Your task to perform on an android device: Go to ESPN.com Image 0: 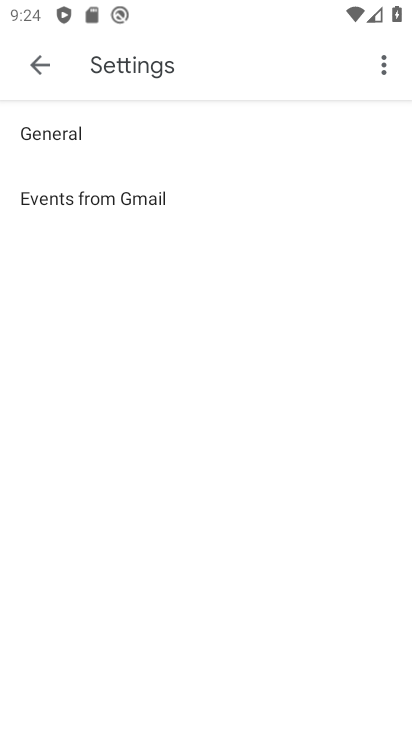
Step 0: press home button
Your task to perform on an android device: Go to ESPN.com Image 1: 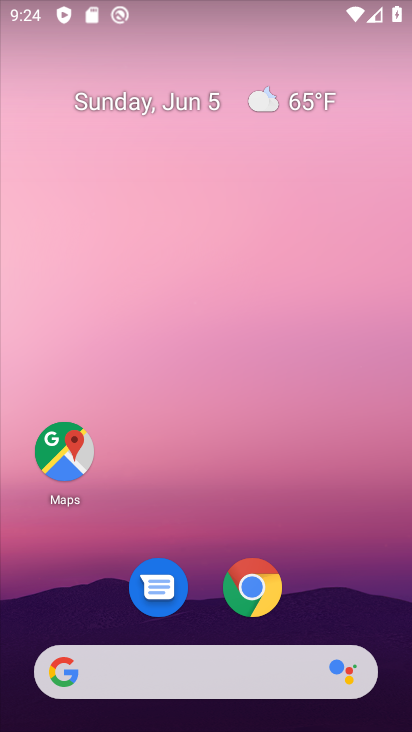
Step 1: click (255, 600)
Your task to perform on an android device: Go to ESPN.com Image 2: 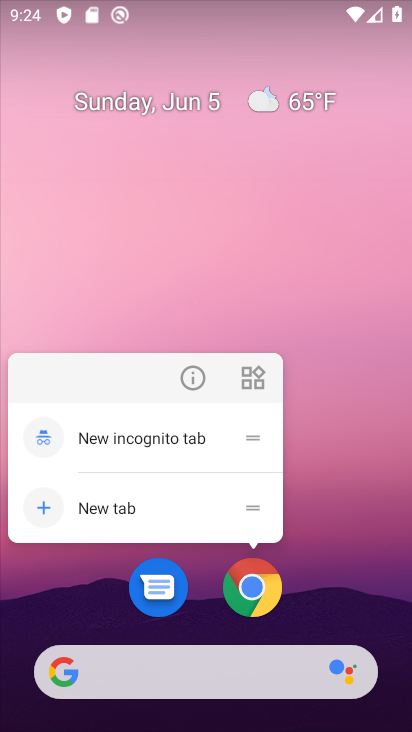
Step 2: click (255, 587)
Your task to perform on an android device: Go to ESPN.com Image 3: 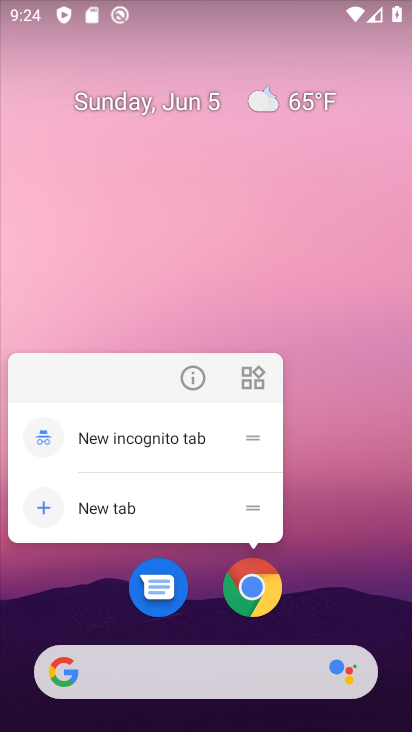
Step 3: click (260, 589)
Your task to perform on an android device: Go to ESPN.com Image 4: 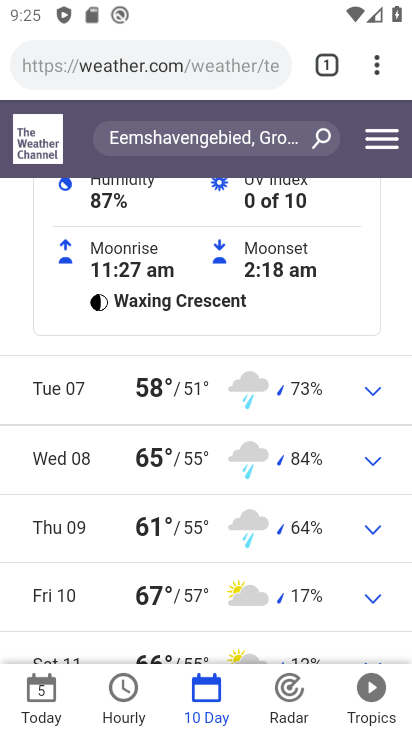
Step 4: drag from (379, 71) to (330, 133)
Your task to perform on an android device: Go to ESPN.com Image 5: 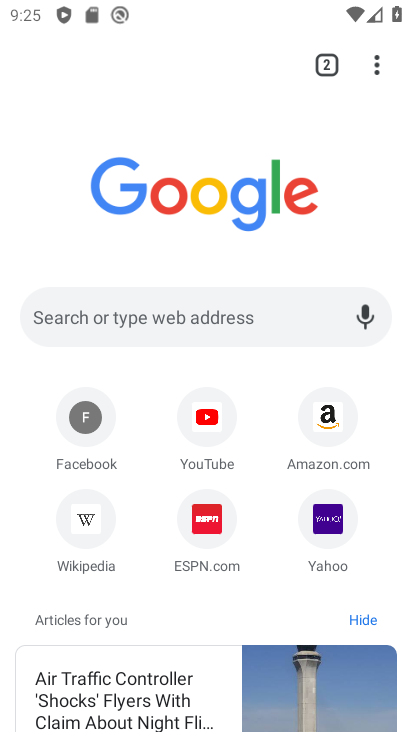
Step 5: click (215, 523)
Your task to perform on an android device: Go to ESPN.com Image 6: 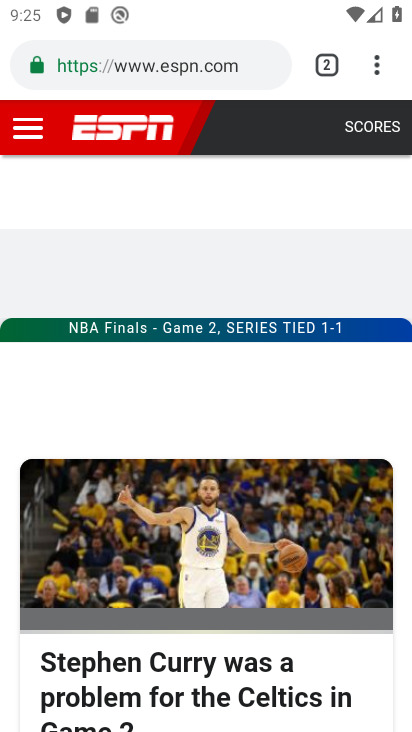
Step 6: task complete